Your task to perform on an android device: Turn off the flashlight Image 0: 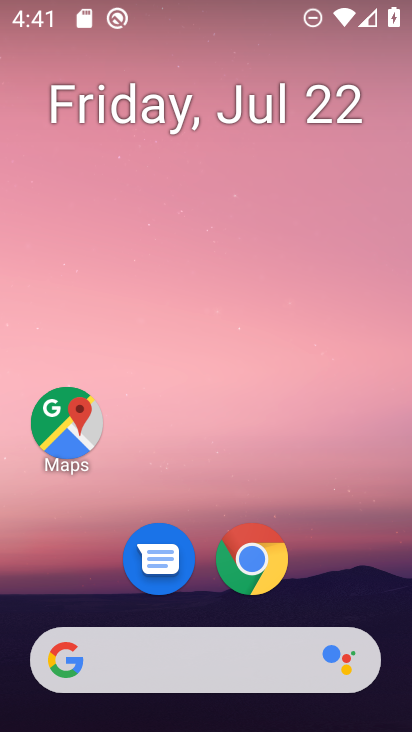
Step 0: press back button
Your task to perform on an android device: Turn off the flashlight Image 1: 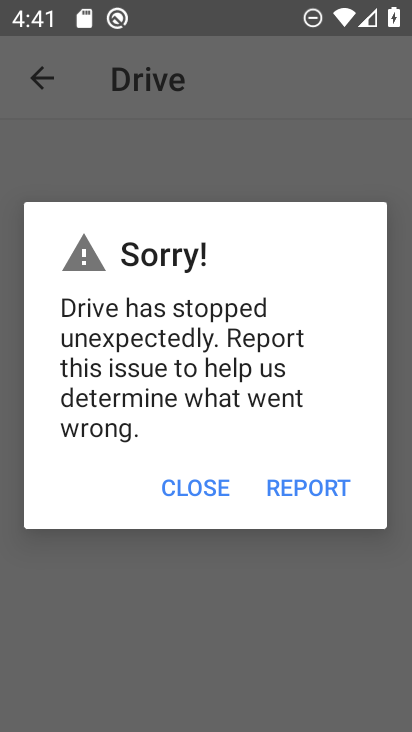
Step 1: click (190, 483)
Your task to perform on an android device: Turn off the flashlight Image 2: 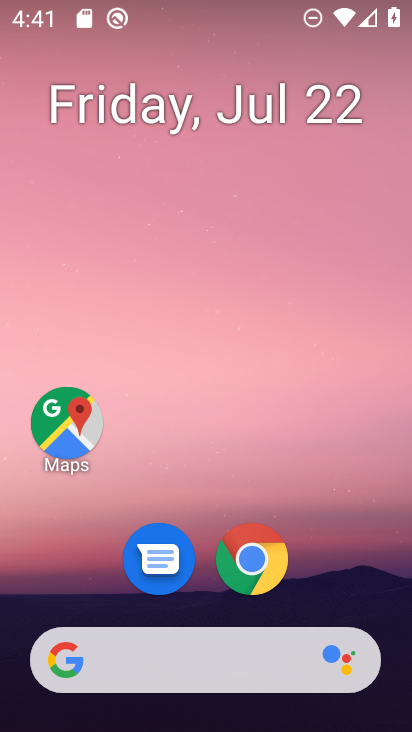
Step 2: drag from (222, 434) to (298, 0)
Your task to perform on an android device: Turn off the flashlight Image 3: 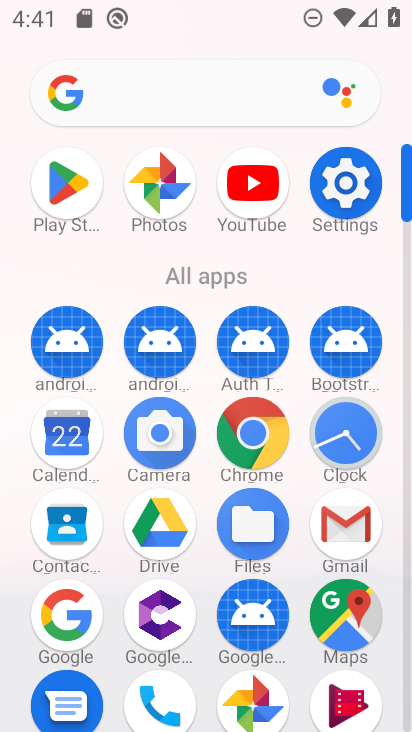
Step 3: click (341, 200)
Your task to perform on an android device: Turn off the flashlight Image 4: 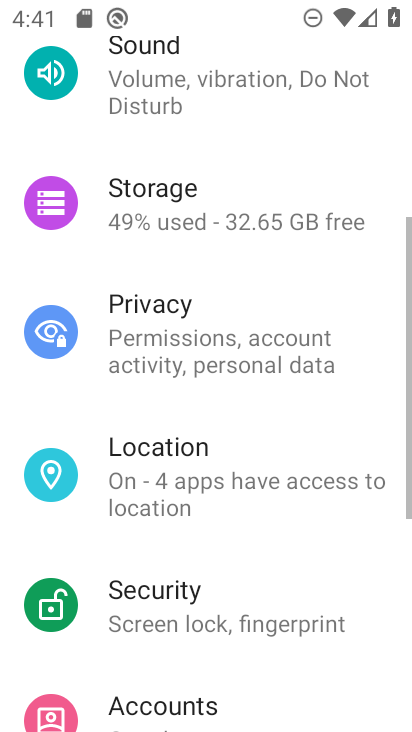
Step 4: drag from (175, 139) to (183, 713)
Your task to perform on an android device: Turn off the flashlight Image 5: 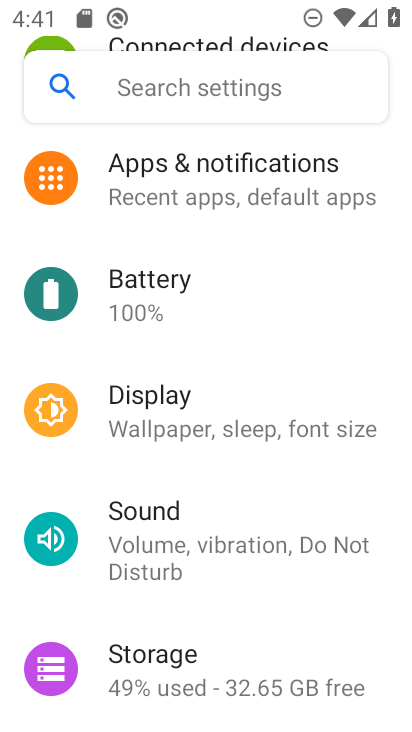
Step 5: click (181, 102)
Your task to perform on an android device: Turn off the flashlight Image 6: 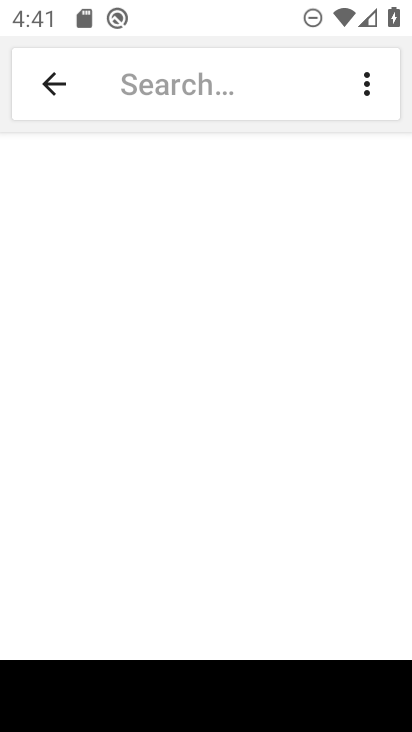
Step 6: type "flashlight"
Your task to perform on an android device: Turn off the flashlight Image 7: 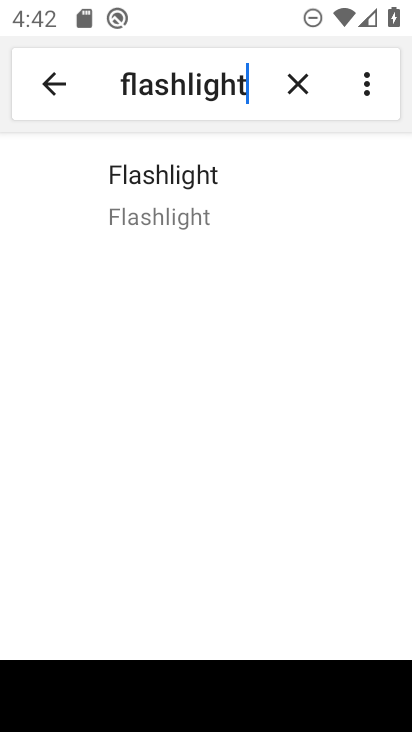
Step 7: click (147, 201)
Your task to perform on an android device: Turn off the flashlight Image 8: 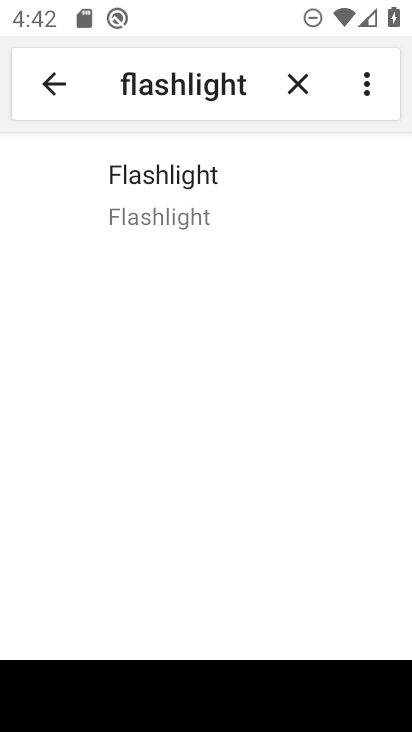
Step 8: task complete